Your task to perform on an android device: toggle notification dots Image 0: 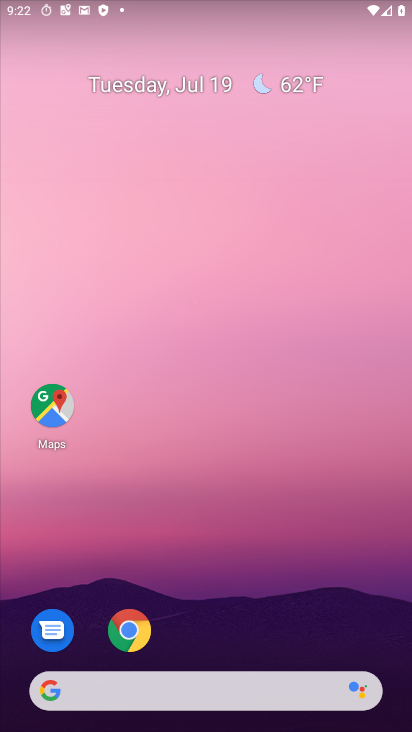
Step 0: drag from (69, 616) to (210, 137)
Your task to perform on an android device: toggle notification dots Image 1: 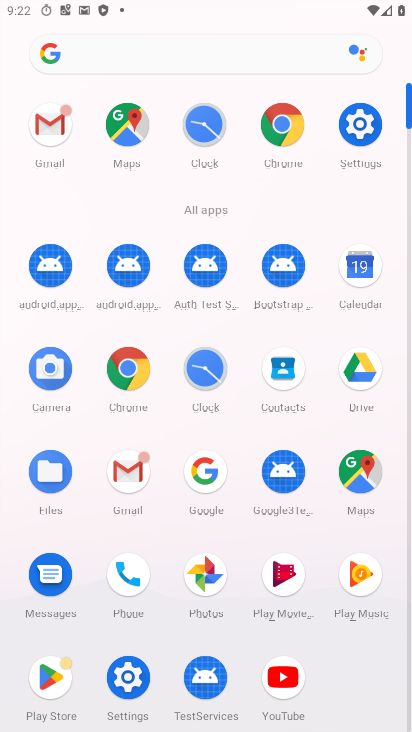
Step 1: click (131, 697)
Your task to perform on an android device: toggle notification dots Image 2: 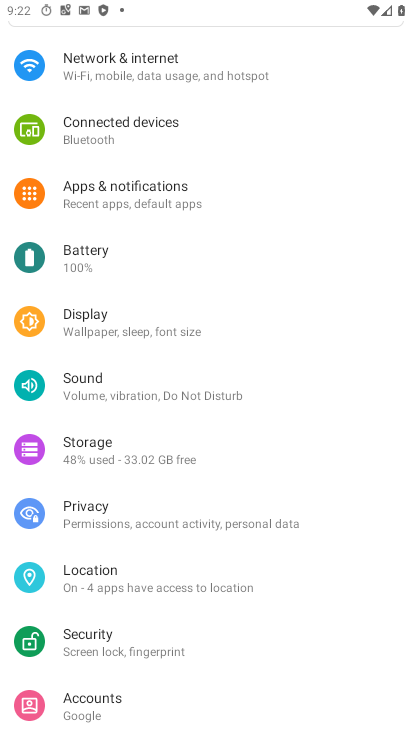
Step 2: click (114, 183)
Your task to perform on an android device: toggle notification dots Image 3: 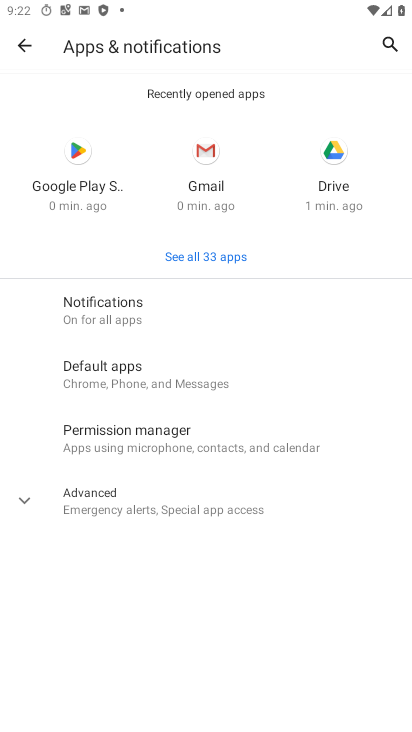
Step 3: click (112, 509)
Your task to perform on an android device: toggle notification dots Image 4: 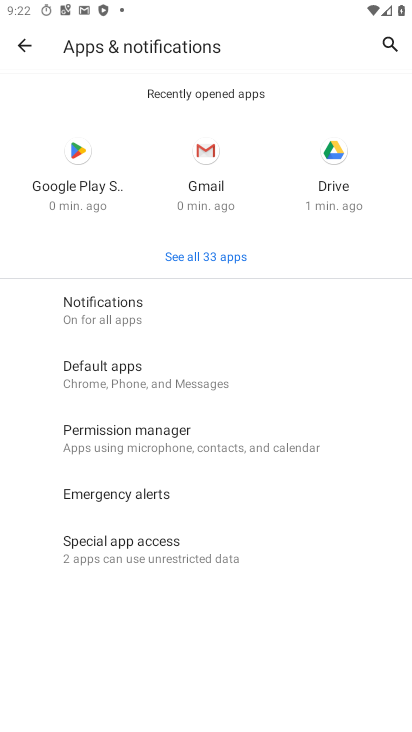
Step 4: click (114, 551)
Your task to perform on an android device: toggle notification dots Image 5: 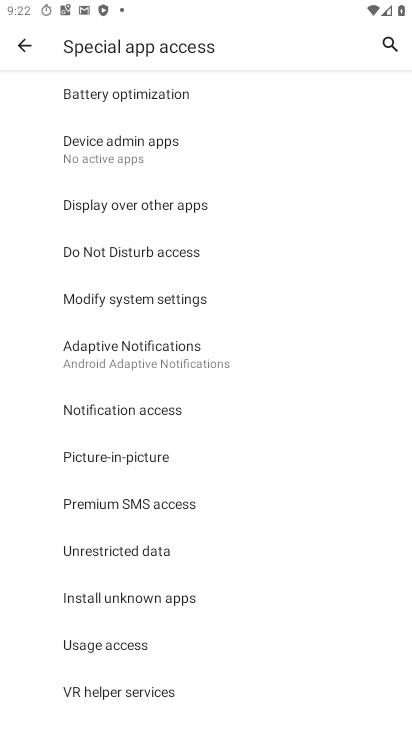
Step 5: click (26, 48)
Your task to perform on an android device: toggle notification dots Image 6: 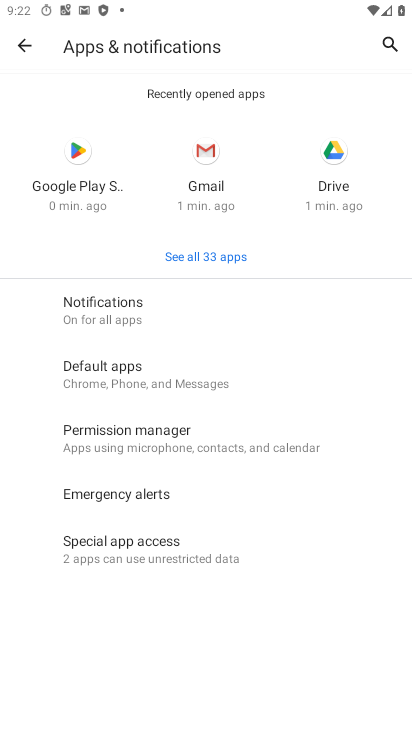
Step 6: click (112, 366)
Your task to perform on an android device: toggle notification dots Image 7: 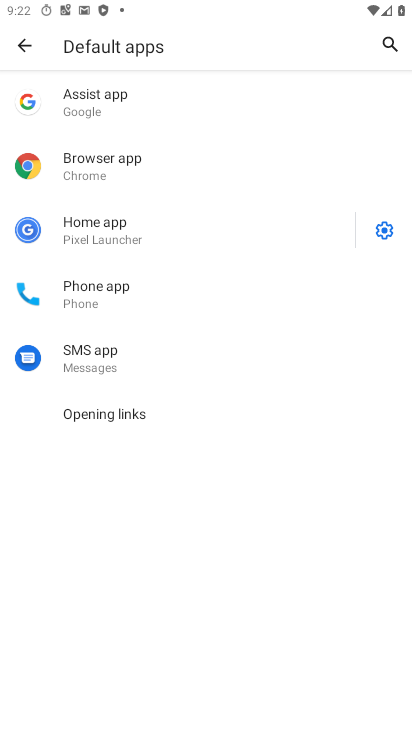
Step 7: click (15, 40)
Your task to perform on an android device: toggle notification dots Image 8: 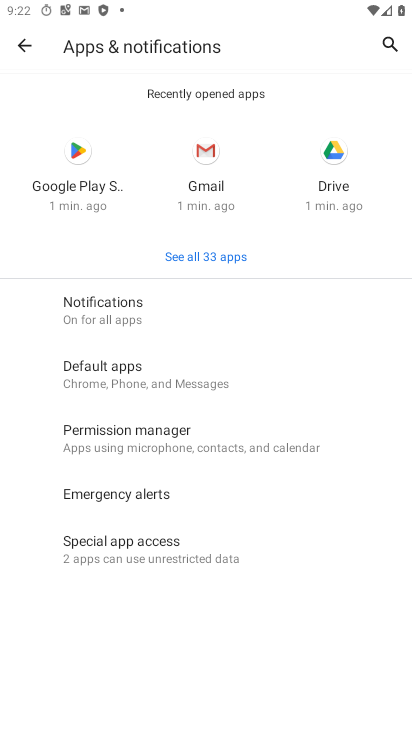
Step 8: click (180, 441)
Your task to perform on an android device: toggle notification dots Image 9: 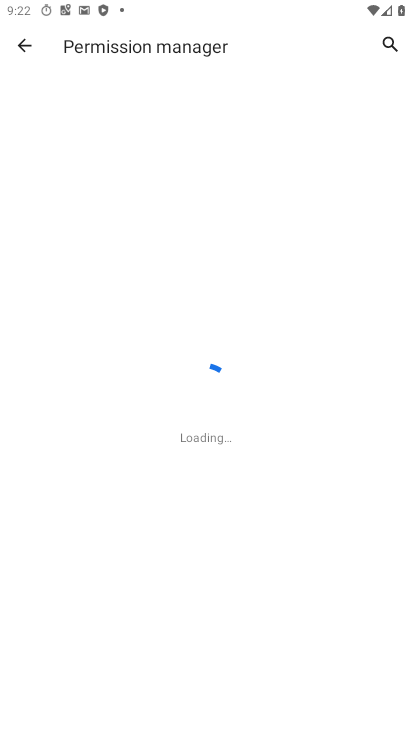
Step 9: click (12, 46)
Your task to perform on an android device: toggle notification dots Image 10: 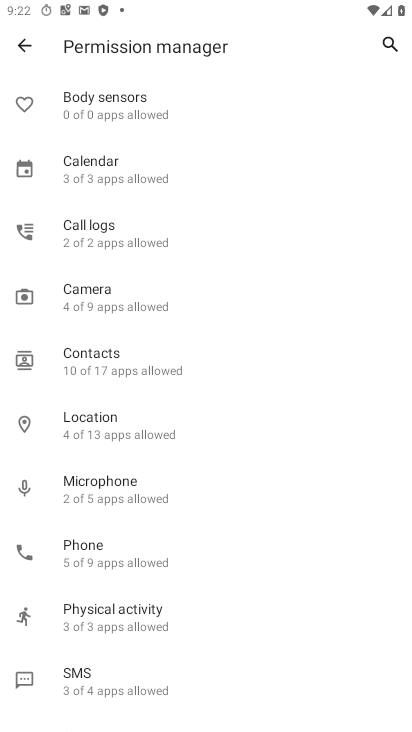
Step 10: click (35, 45)
Your task to perform on an android device: toggle notification dots Image 11: 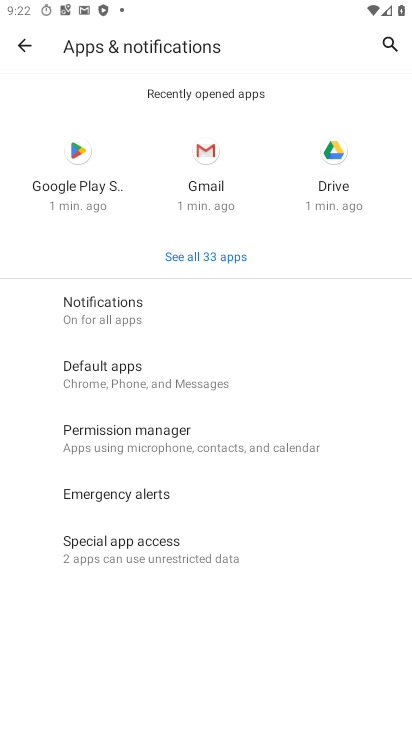
Step 11: click (95, 320)
Your task to perform on an android device: toggle notification dots Image 12: 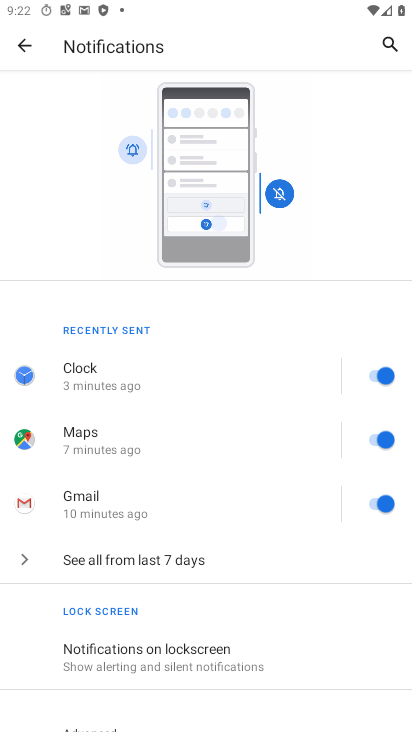
Step 12: task complete